Your task to perform on an android device: set the stopwatch Image 0: 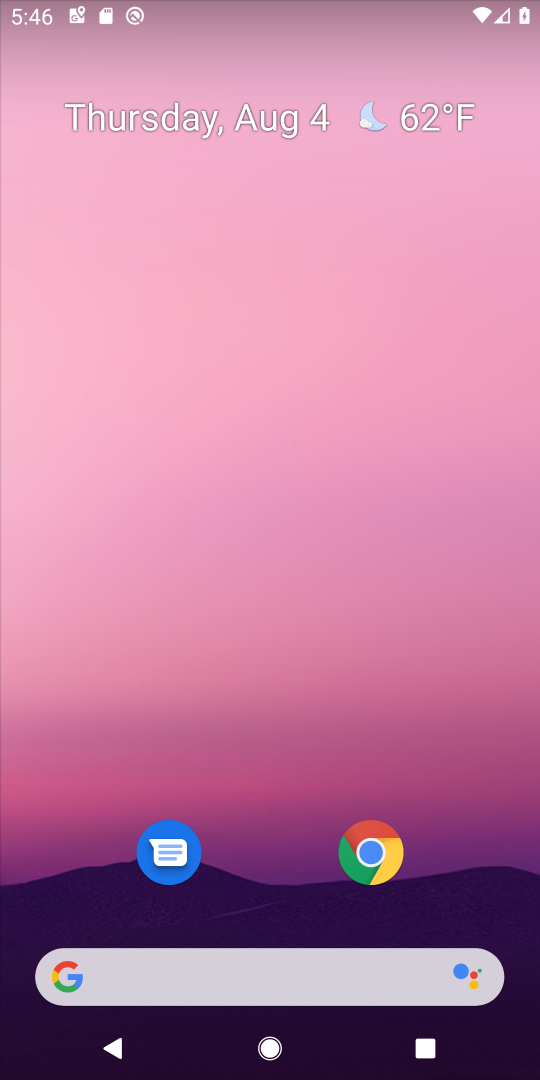
Step 0: drag from (271, 918) to (271, 124)
Your task to perform on an android device: set the stopwatch Image 1: 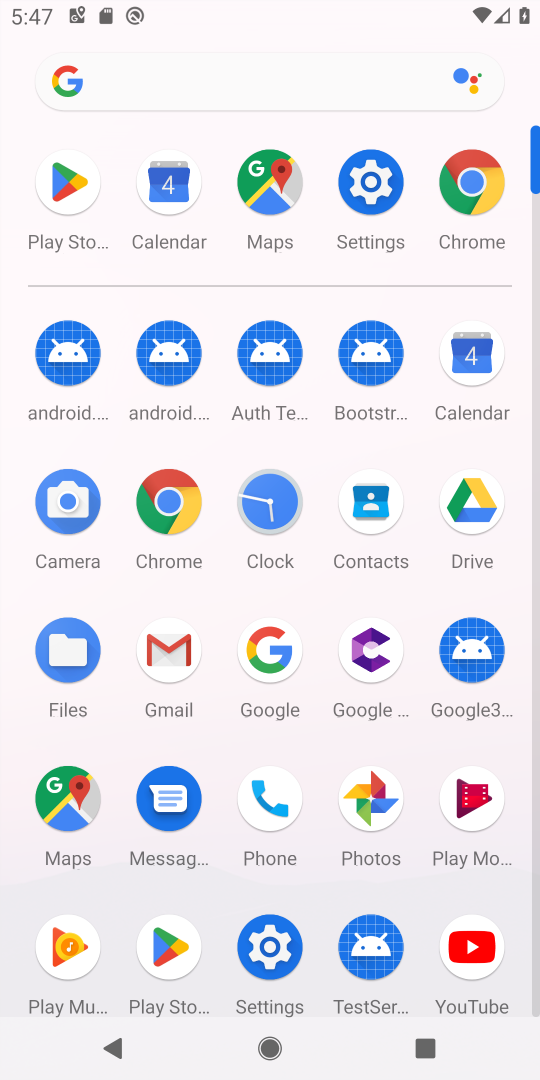
Step 1: click (273, 500)
Your task to perform on an android device: set the stopwatch Image 2: 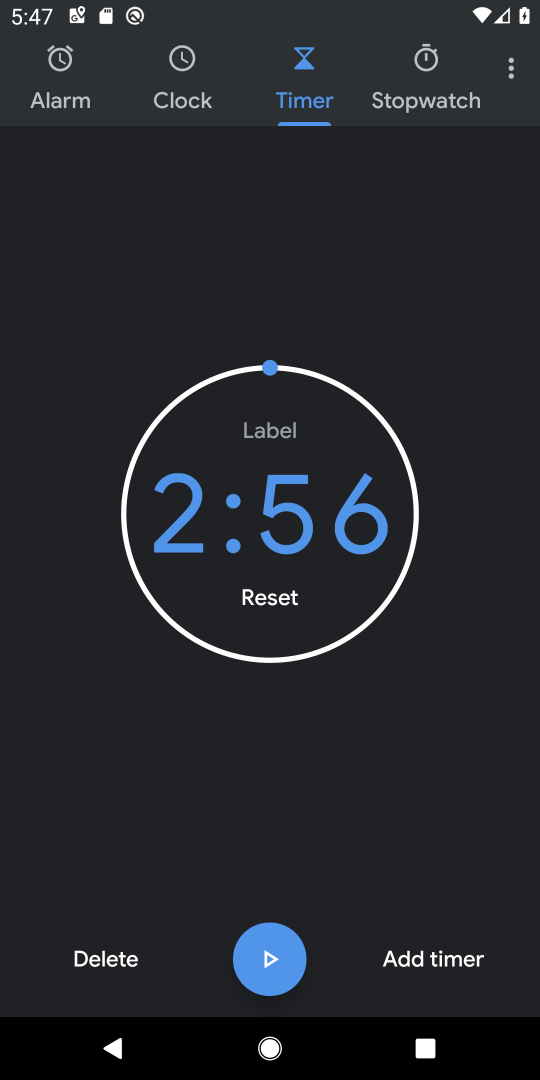
Step 2: click (432, 80)
Your task to perform on an android device: set the stopwatch Image 3: 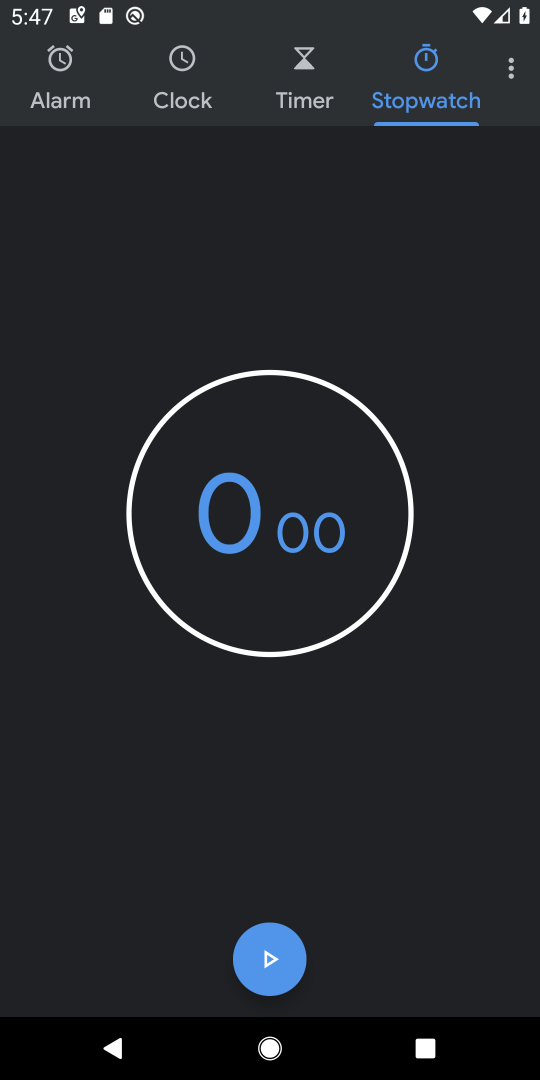
Step 3: task complete